Your task to perform on an android device: set an alarm Image 0: 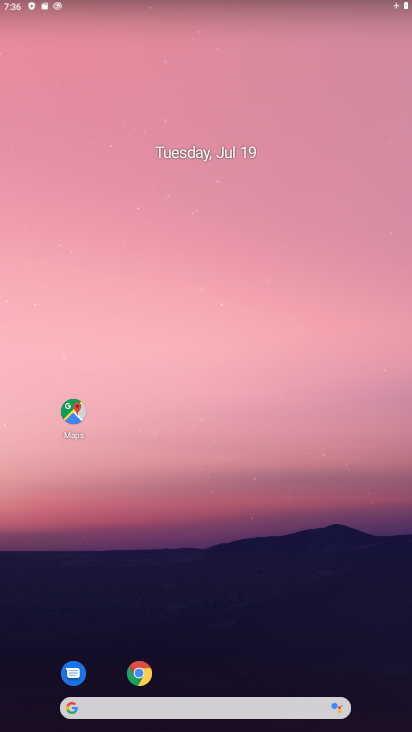
Step 0: drag from (272, 428) to (267, 76)
Your task to perform on an android device: set an alarm Image 1: 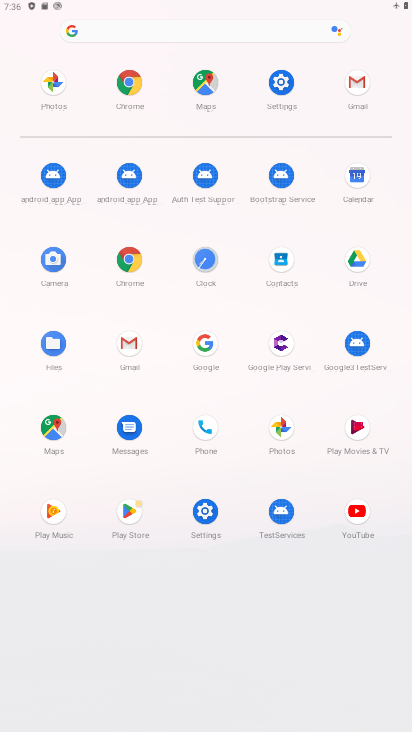
Step 1: click (207, 266)
Your task to perform on an android device: set an alarm Image 2: 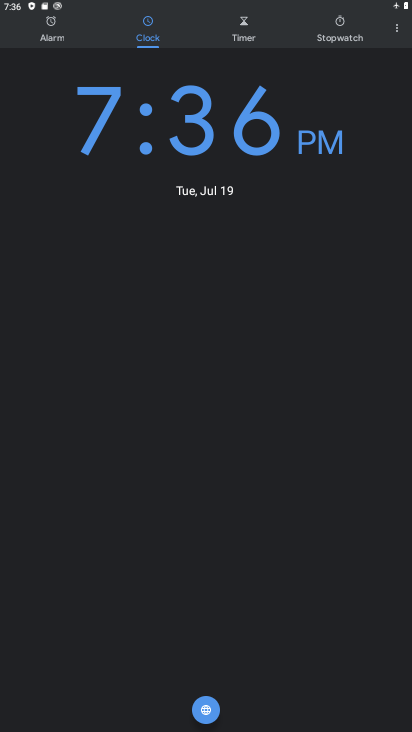
Step 2: click (60, 34)
Your task to perform on an android device: set an alarm Image 3: 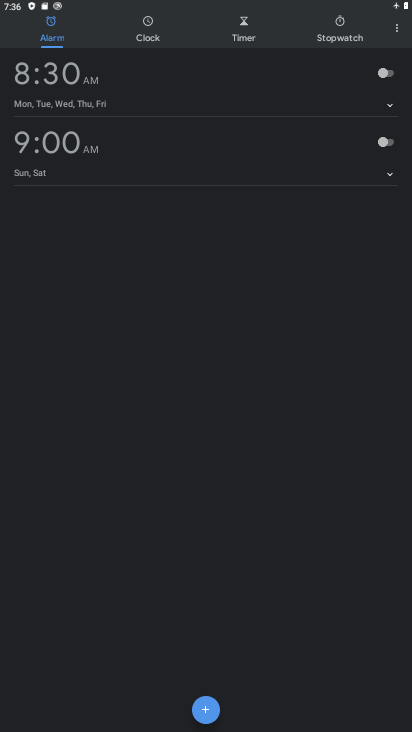
Step 3: click (385, 81)
Your task to perform on an android device: set an alarm Image 4: 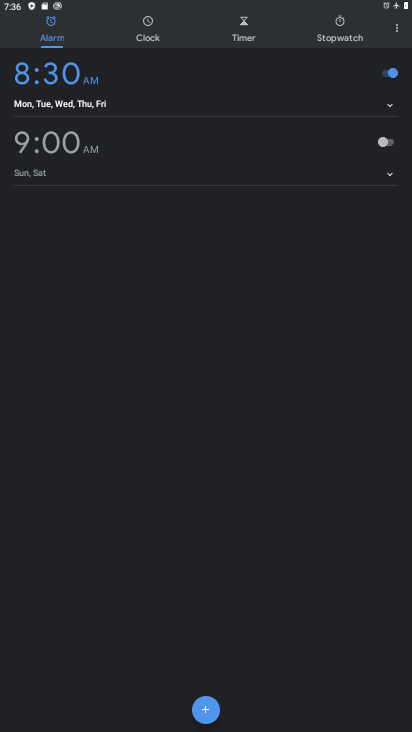
Step 4: task complete